Your task to perform on an android device: Clear the shopping cart on target. Image 0: 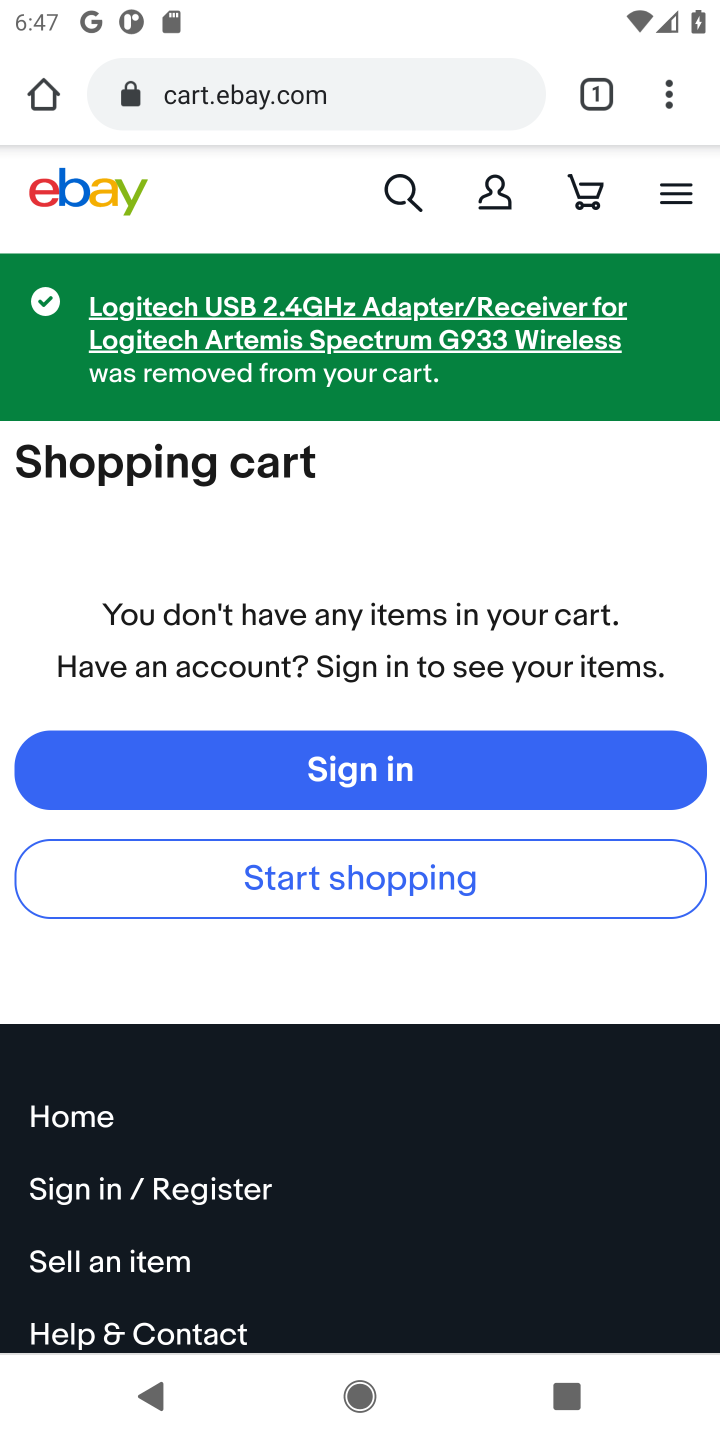
Step 0: click (312, 94)
Your task to perform on an android device: Clear the shopping cart on target. Image 1: 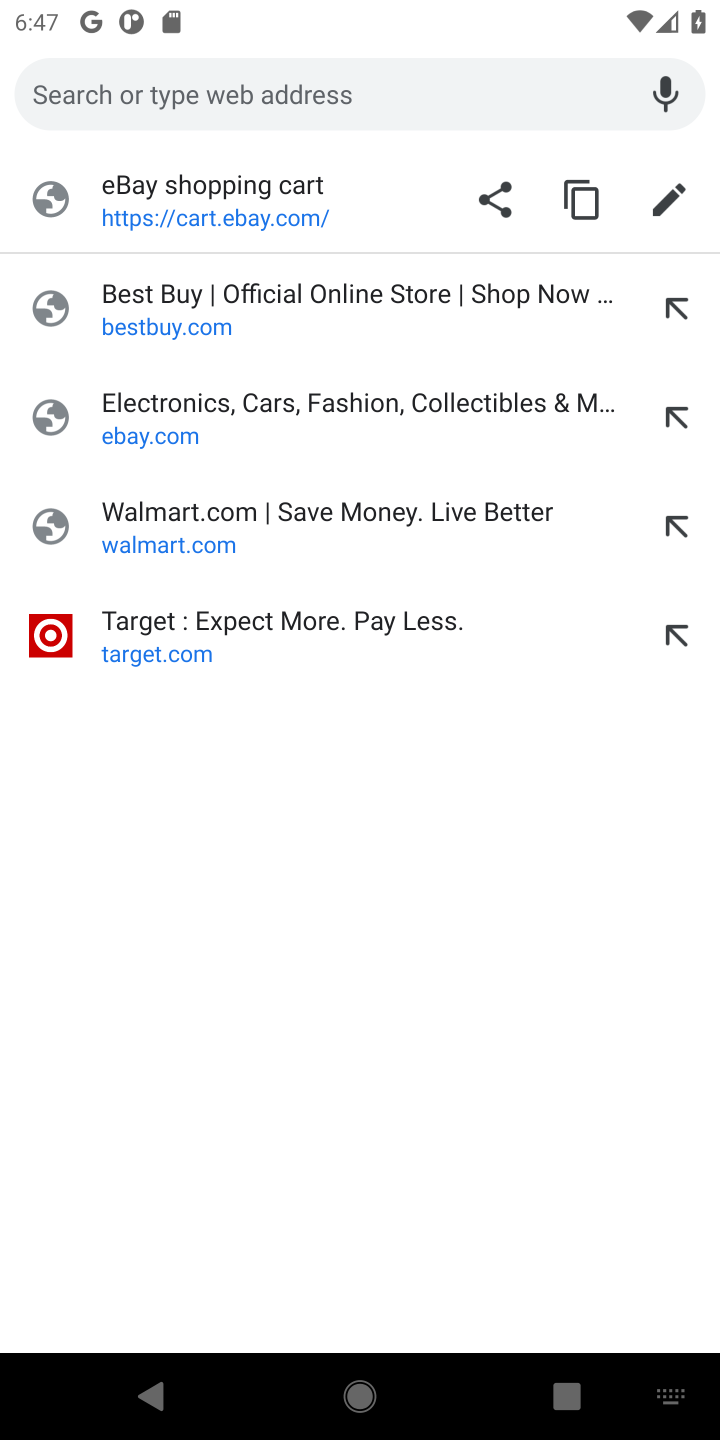
Step 1: click (125, 637)
Your task to perform on an android device: Clear the shopping cart on target. Image 2: 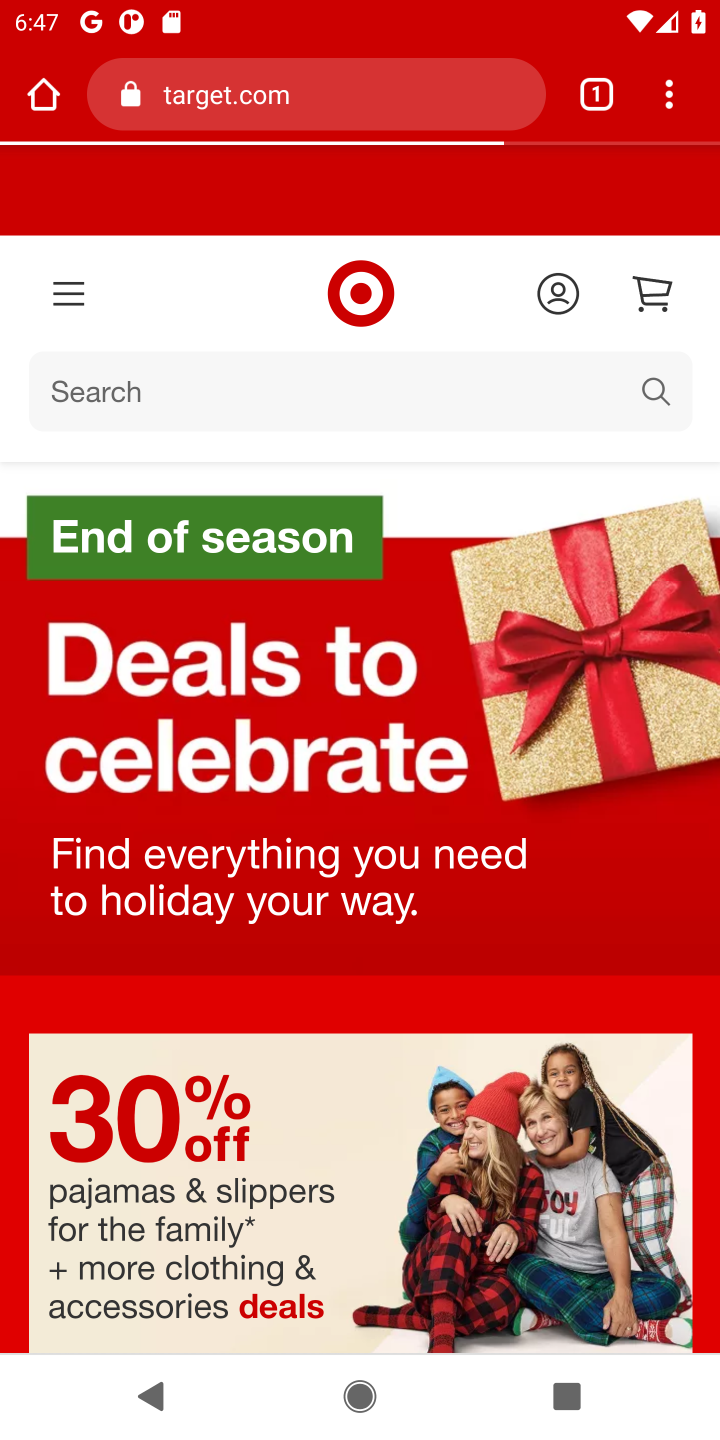
Step 2: click (641, 290)
Your task to perform on an android device: Clear the shopping cart on target. Image 3: 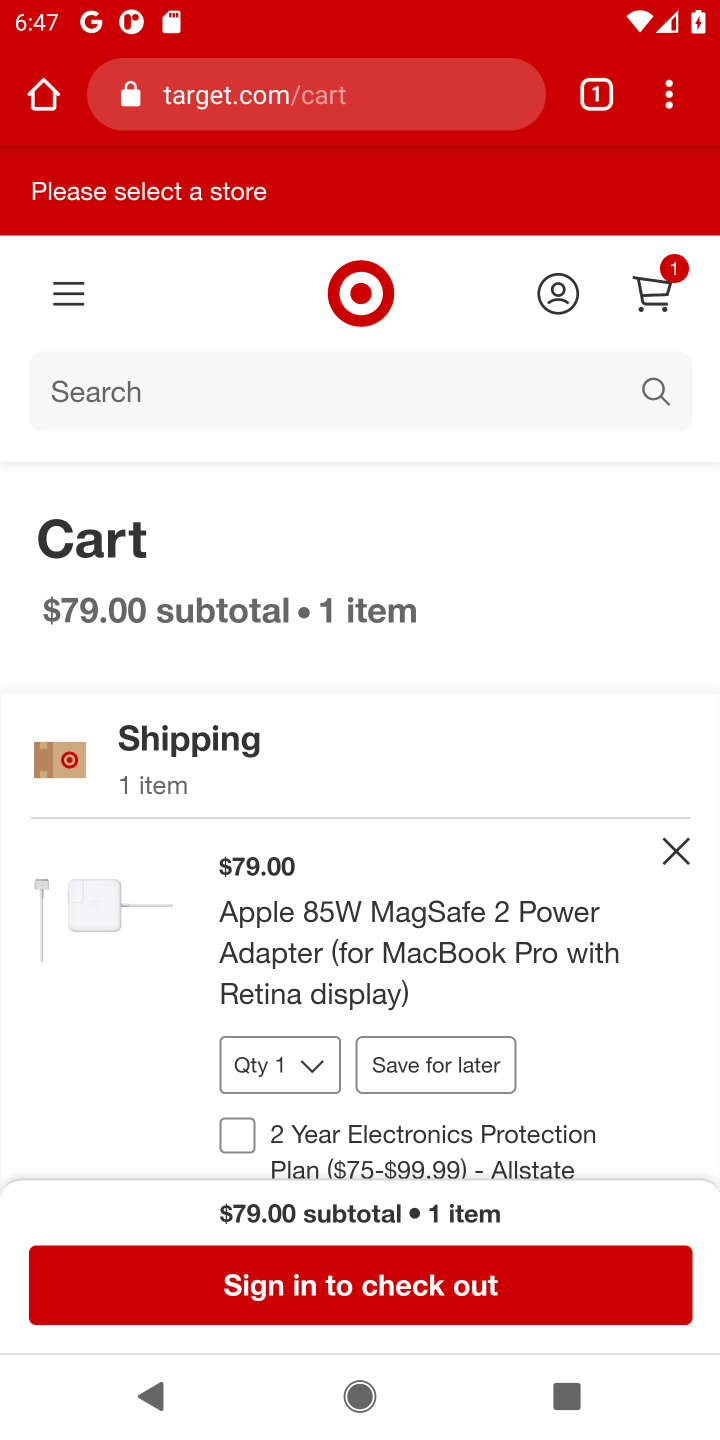
Step 3: click (680, 851)
Your task to perform on an android device: Clear the shopping cart on target. Image 4: 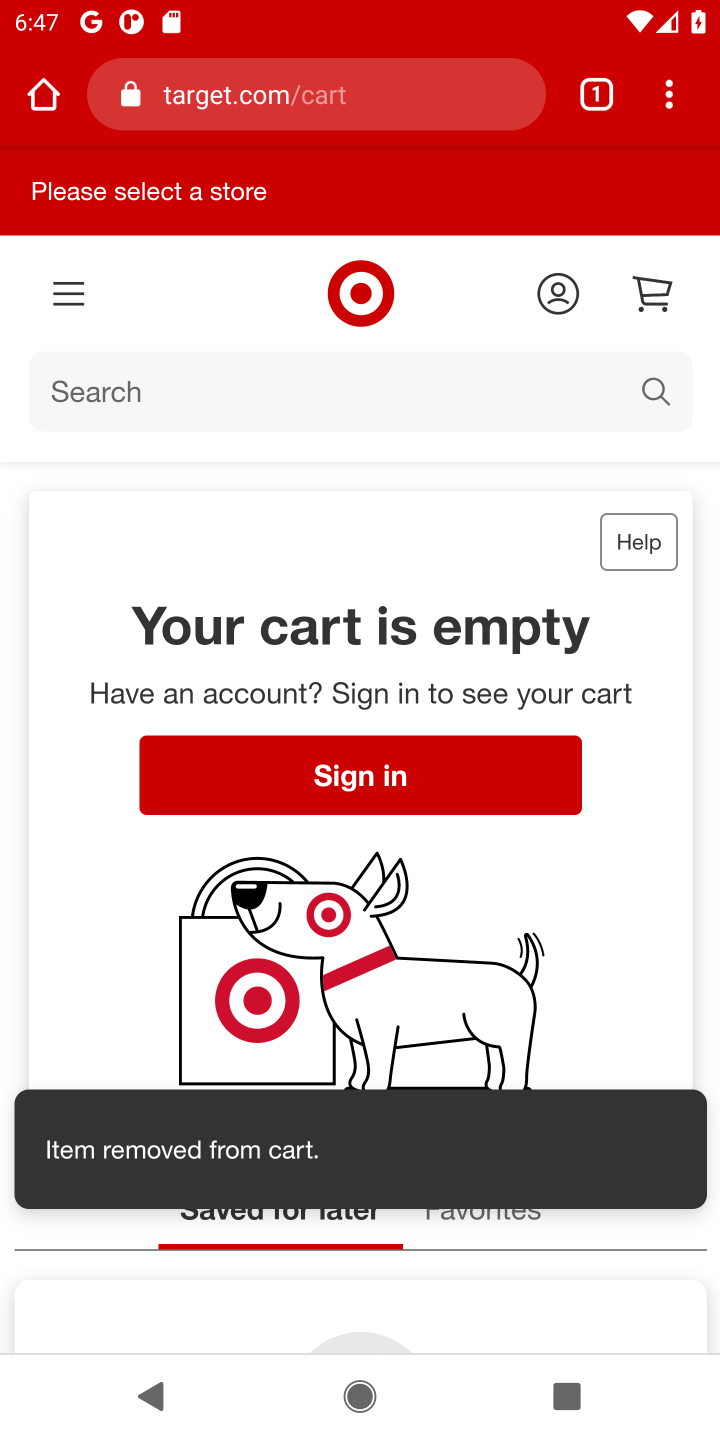
Step 4: task complete